Your task to perform on an android device: delete the emails in spam in the gmail app Image 0: 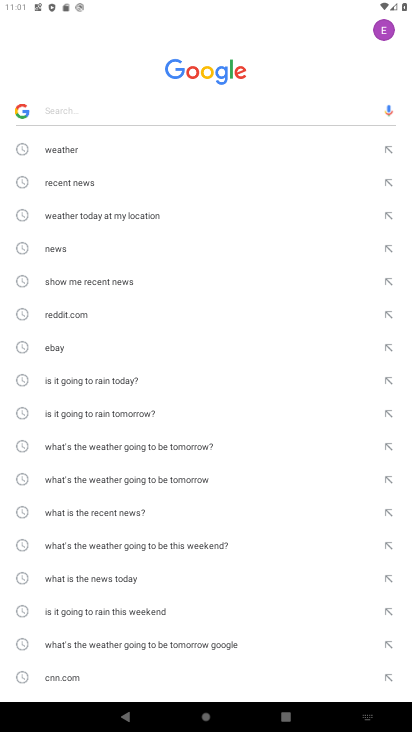
Step 0: press back button
Your task to perform on an android device: delete the emails in spam in the gmail app Image 1: 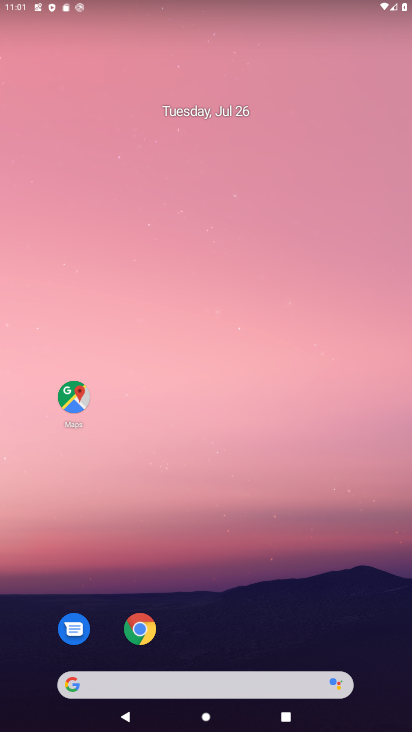
Step 1: drag from (291, 642) to (257, 27)
Your task to perform on an android device: delete the emails in spam in the gmail app Image 2: 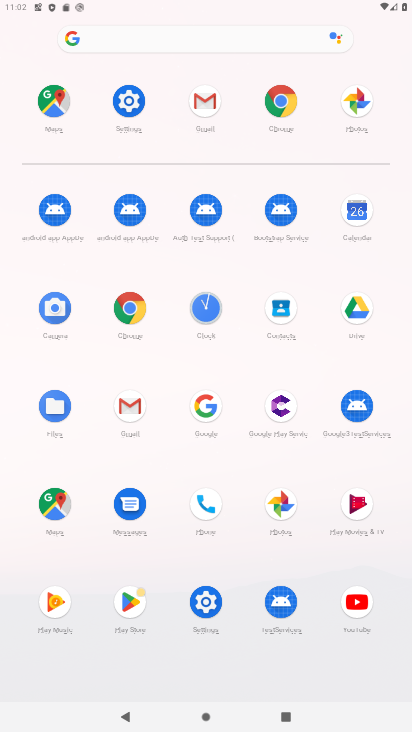
Step 2: click (227, 115)
Your task to perform on an android device: delete the emails in spam in the gmail app Image 3: 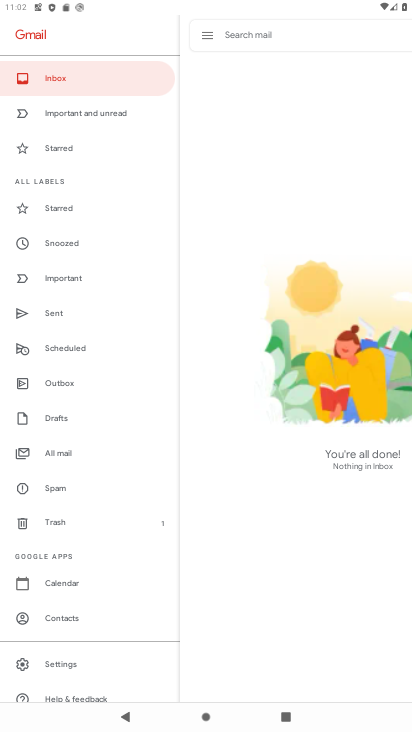
Step 3: click (65, 495)
Your task to perform on an android device: delete the emails in spam in the gmail app Image 4: 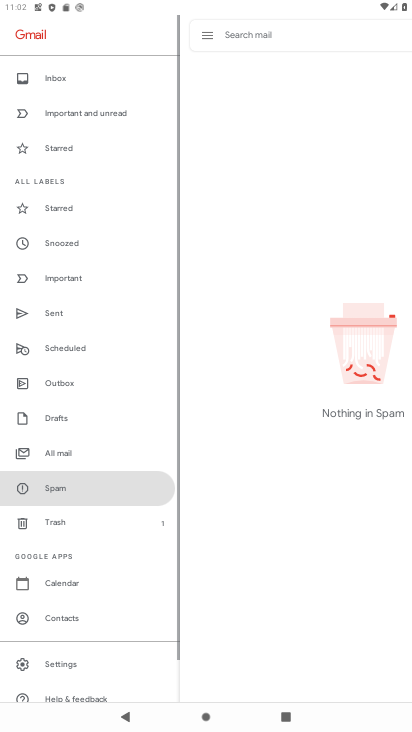
Step 4: task complete